Your task to perform on an android device: snooze an email in the gmail app Image 0: 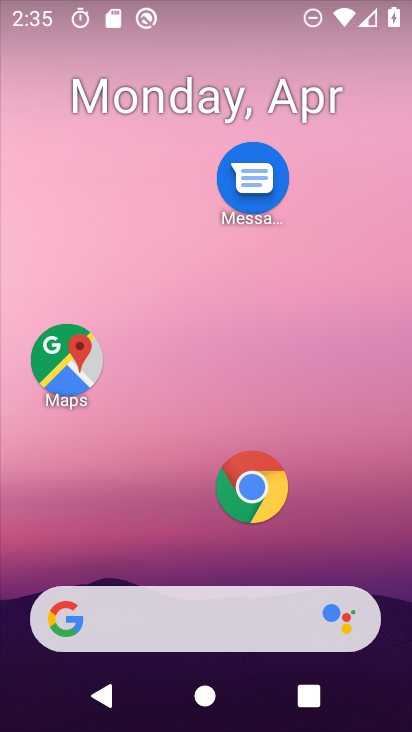
Step 0: drag from (174, 443) to (257, 39)
Your task to perform on an android device: snooze an email in the gmail app Image 1: 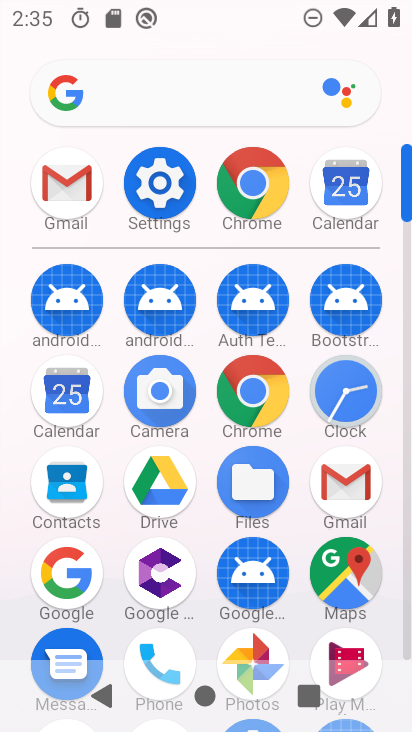
Step 1: click (352, 493)
Your task to perform on an android device: snooze an email in the gmail app Image 2: 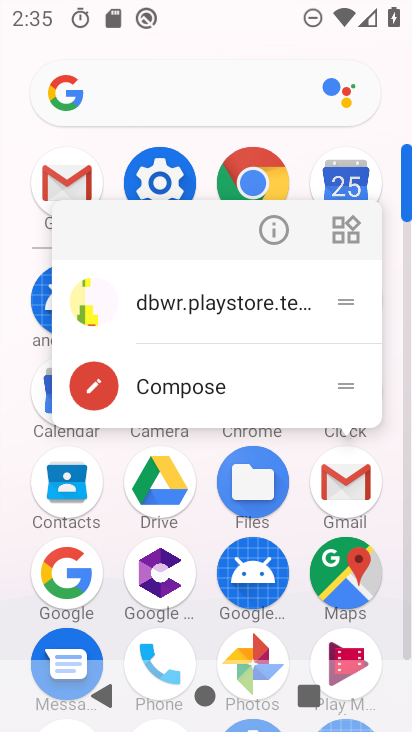
Step 2: click (327, 486)
Your task to perform on an android device: snooze an email in the gmail app Image 3: 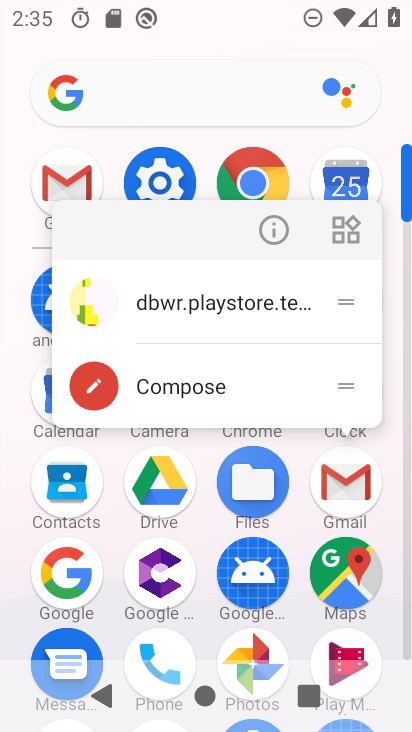
Step 3: click (353, 484)
Your task to perform on an android device: snooze an email in the gmail app Image 4: 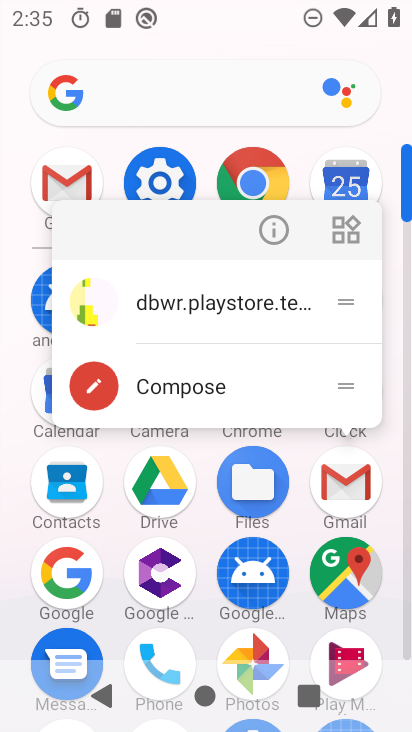
Step 4: click (353, 484)
Your task to perform on an android device: snooze an email in the gmail app Image 5: 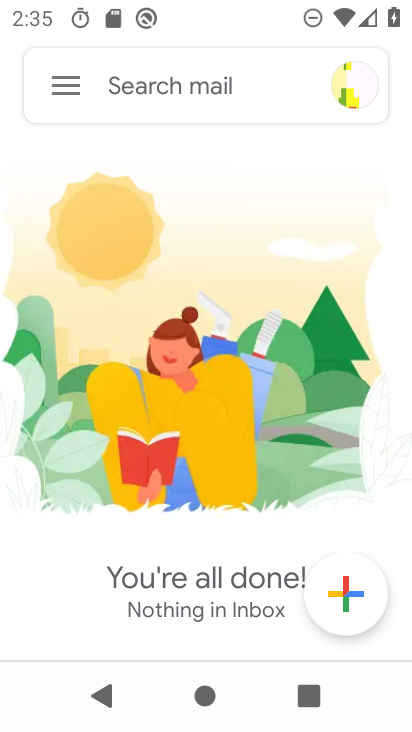
Step 5: click (53, 87)
Your task to perform on an android device: snooze an email in the gmail app Image 6: 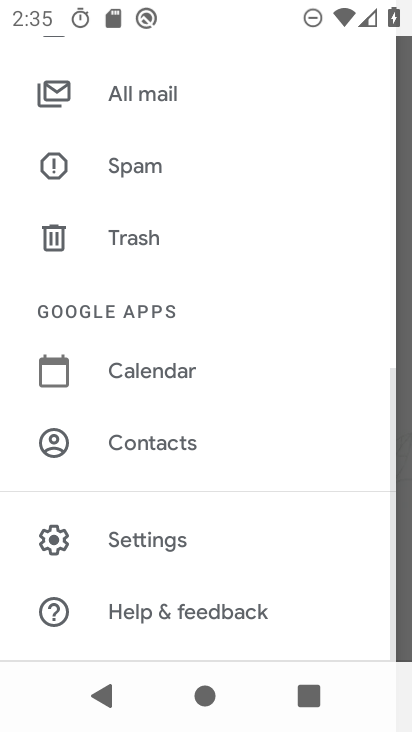
Step 6: drag from (249, 175) to (321, 660)
Your task to perform on an android device: snooze an email in the gmail app Image 7: 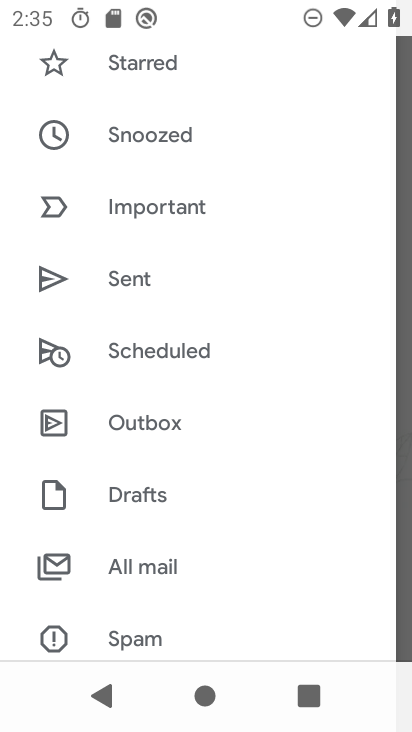
Step 7: click (193, 143)
Your task to perform on an android device: snooze an email in the gmail app Image 8: 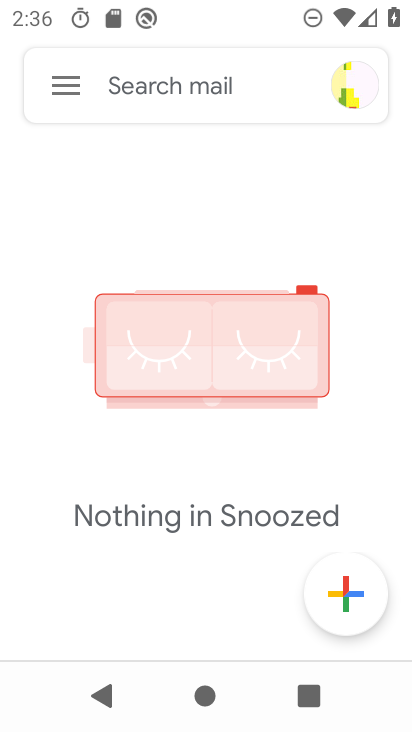
Step 8: task complete